Your task to perform on an android device: turn off location Image 0: 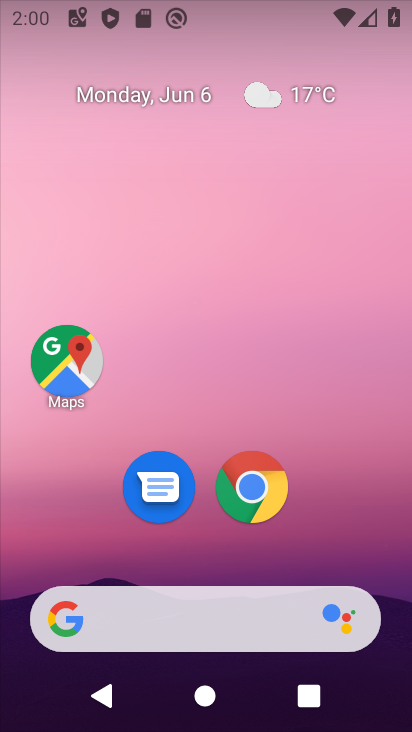
Step 0: drag from (103, 572) to (202, 121)
Your task to perform on an android device: turn off location Image 1: 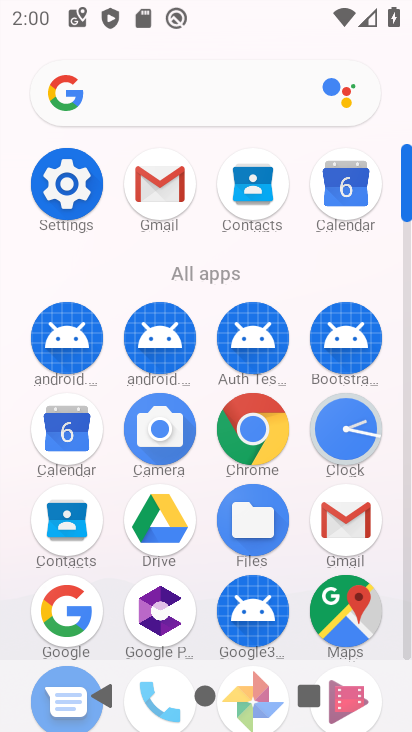
Step 1: drag from (139, 653) to (194, 385)
Your task to perform on an android device: turn off location Image 2: 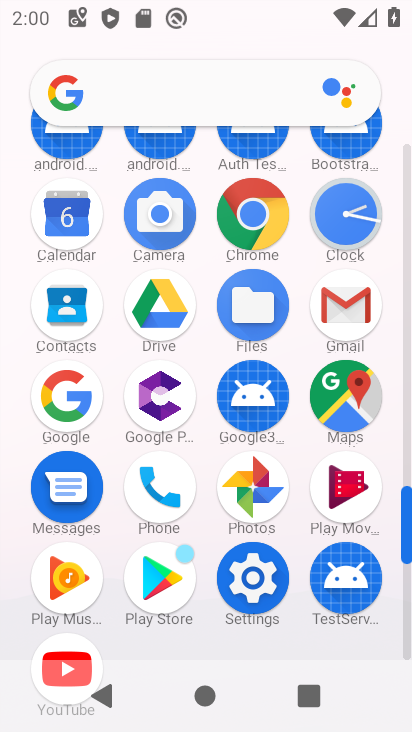
Step 2: click (264, 581)
Your task to perform on an android device: turn off location Image 3: 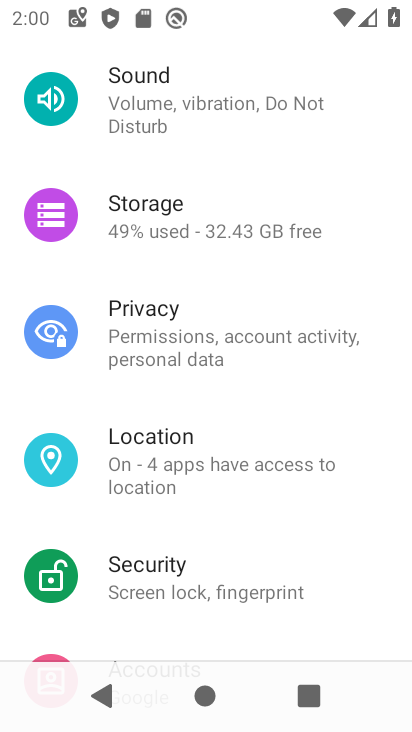
Step 3: click (162, 483)
Your task to perform on an android device: turn off location Image 4: 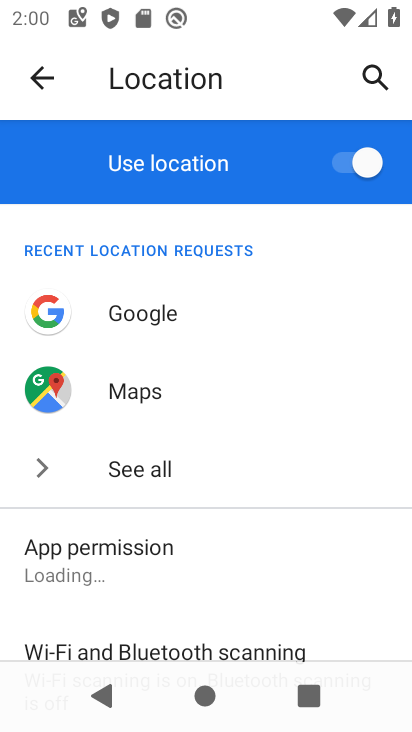
Step 4: click (340, 154)
Your task to perform on an android device: turn off location Image 5: 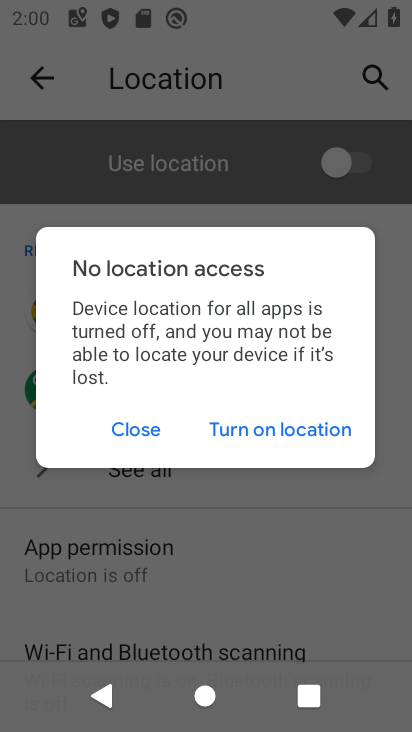
Step 5: click (156, 433)
Your task to perform on an android device: turn off location Image 6: 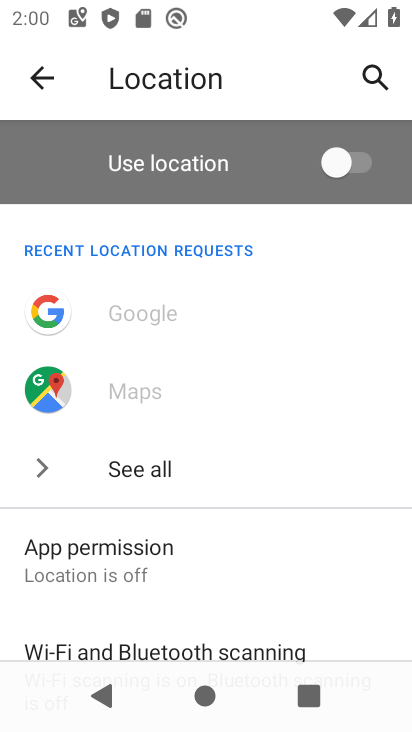
Step 6: task complete